Your task to perform on an android device: Show me productivity apps on the Play Store Image 0: 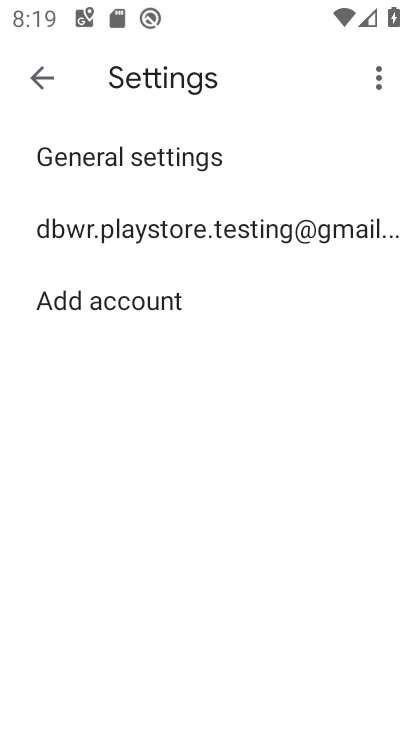
Step 0: press home button
Your task to perform on an android device: Show me productivity apps on the Play Store Image 1: 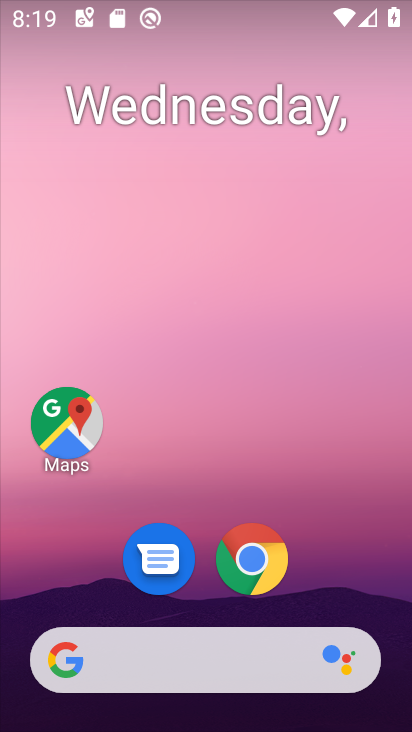
Step 1: drag from (394, 570) to (394, 164)
Your task to perform on an android device: Show me productivity apps on the Play Store Image 2: 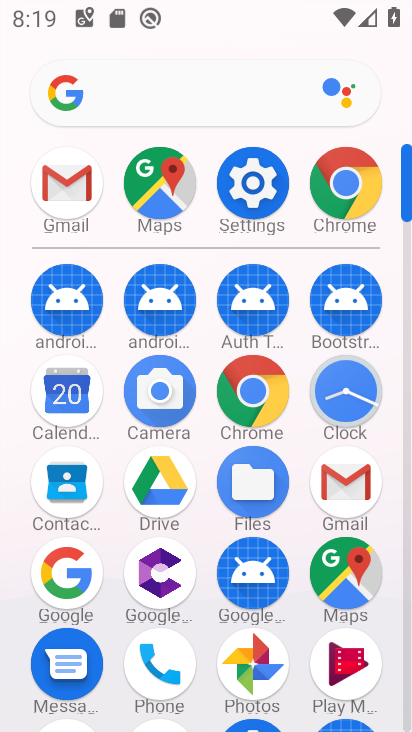
Step 2: drag from (294, 615) to (323, 325)
Your task to perform on an android device: Show me productivity apps on the Play Store Image 3: 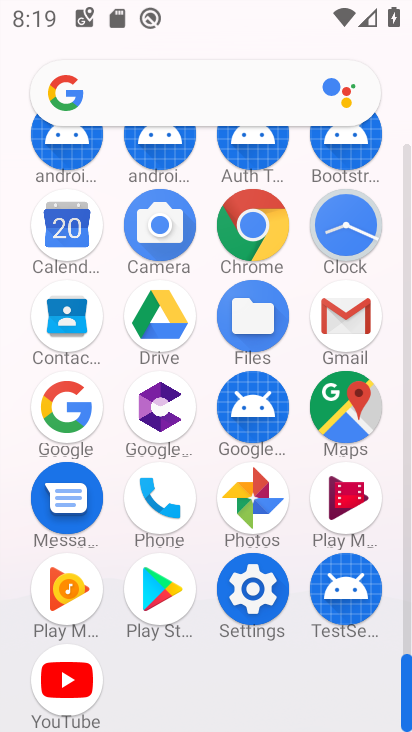
Step 3: click (158, 608)
Your task to perform on an android device: Show me productivity apps on the Play Store Image 4: 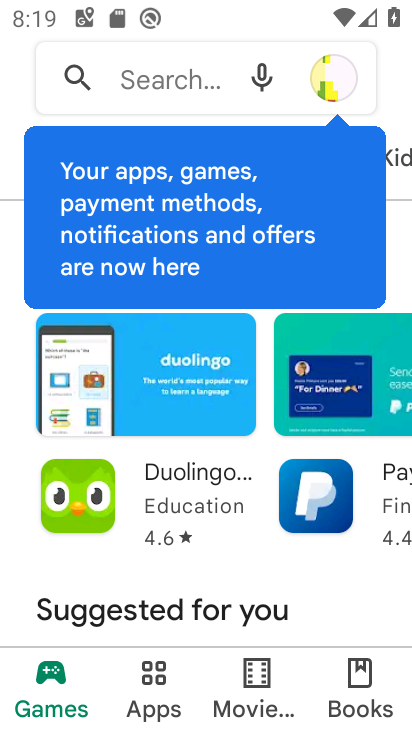
Step 4: click (150, 690)
Your task to perform on an android device: Show me productivity apps on the Play Store Image 5: 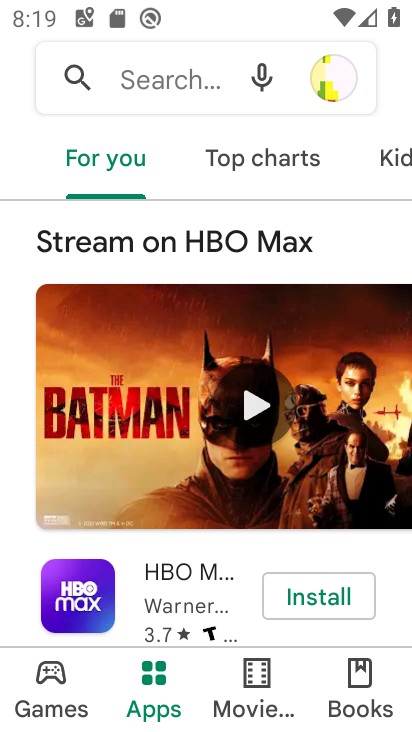
Step 5: drag from (348, 176) to (3, 191)
Your task to perform on an android device: Show me productivity apps on the Play Store Image 6: 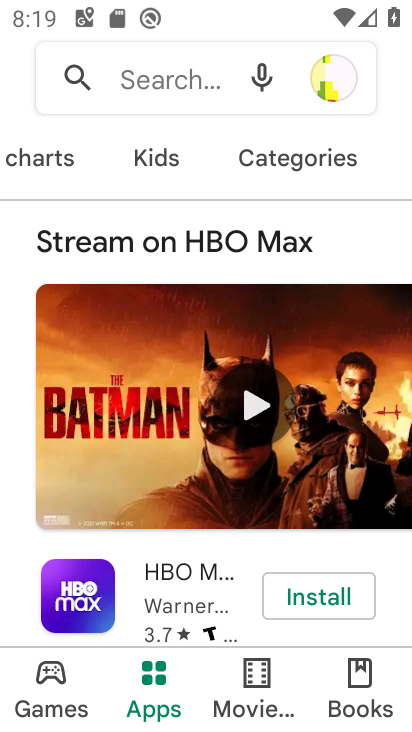
Step 6: click (327, 156)
Your task to perform on an android device: Show me productivity apps on the Play Store Image 7: 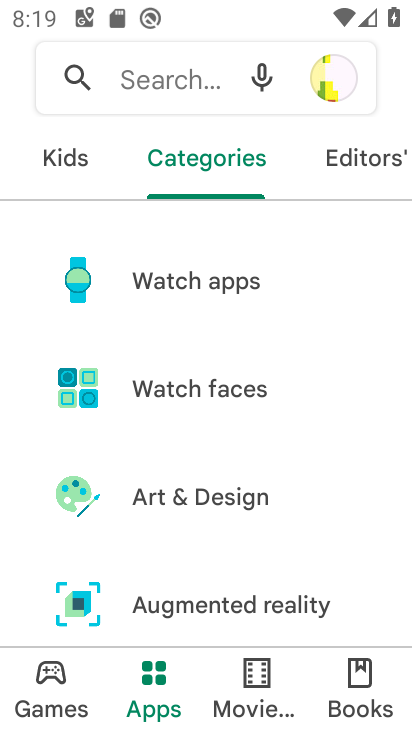
Step 7: drag from (338, 596) to (341, 311)
Your task to perform on an android device: Show me productivity apps on the Play Store Image 8: 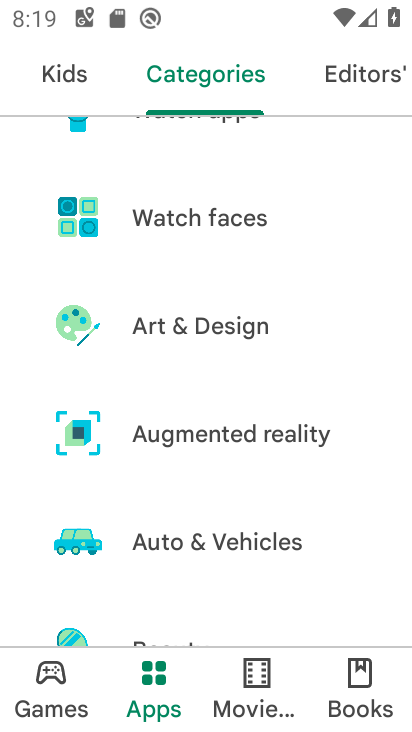
Step 8: drag from (344, 517) to (344, 182)
Your task to perform on an android device: Show me productivity apps on the Play Store Image 9: 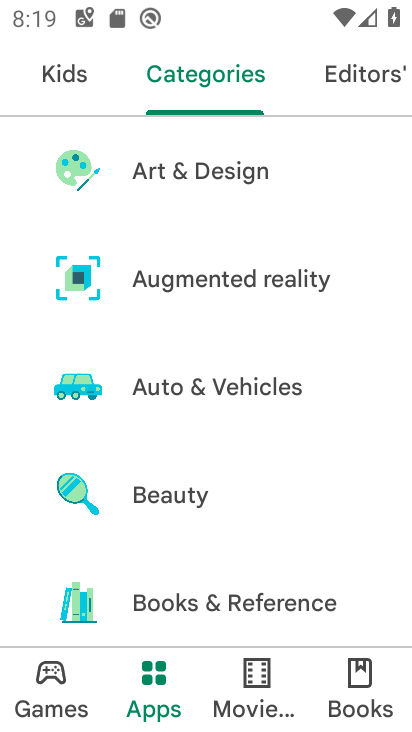
Step 9: drag from (340, 432) to (337, 163)
Your task to perform on an android device: Show me productivity apps on the Play Store Image 10: 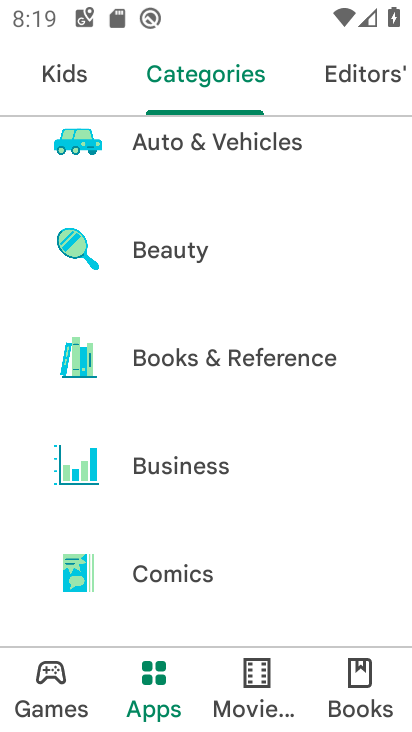
Step 10: drag from (327, 545) to (353, 188)
Your task to perform on an android device: Show me productivity apps on the Play Store Image 11: 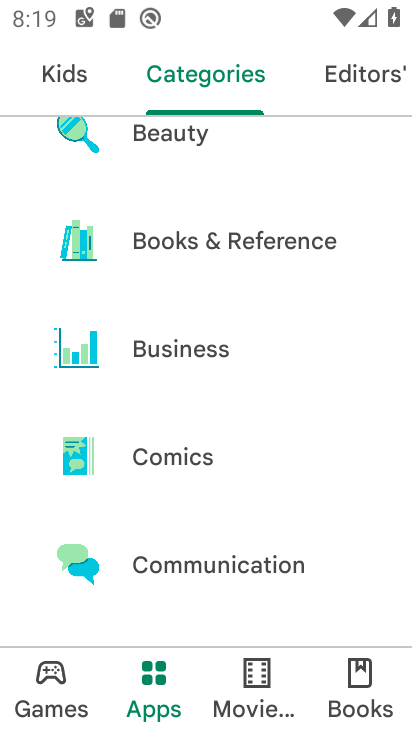
Step 11: drag from (304, 517) to (386, 146)
Your task to perform on an android device: Show me productivity apps on the Play Store Image 12: 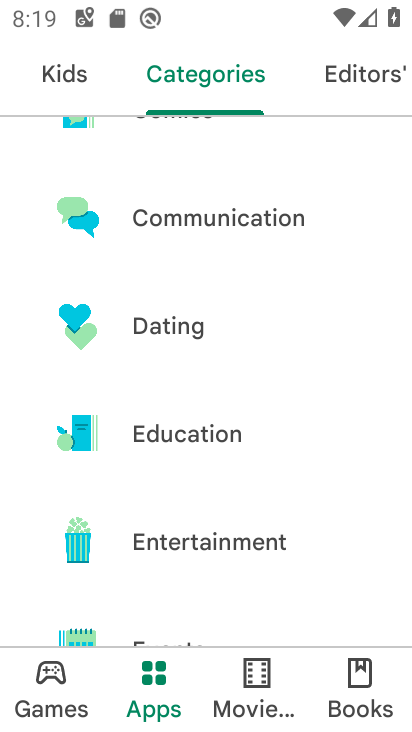
Step 12: drag from (362, 482) to (384, 185)
Your task to perform on an android device: Show me productivity apps on the Play Store Image 13: 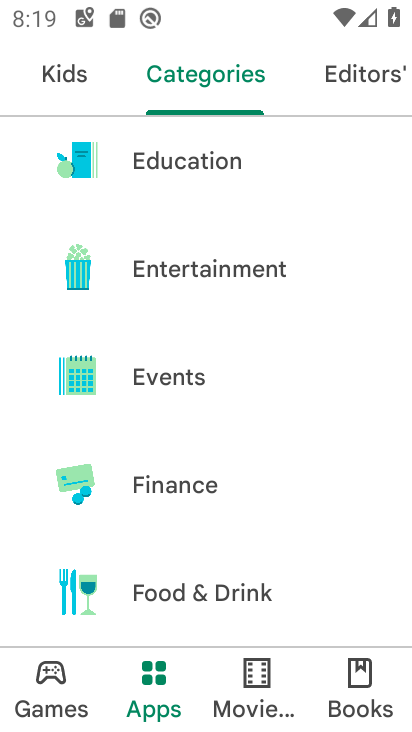
Step 13: drag from (363, 582) to (354, 73)
Your task to perform on an android device: Show me productivity apps on the Play Store Image 14: 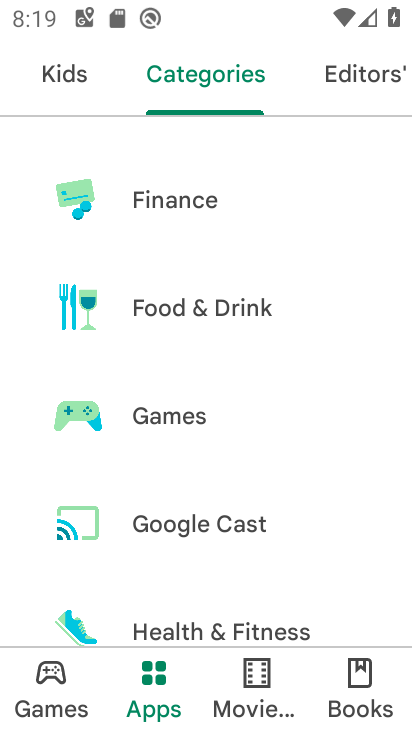
Step 14: drag from (371, 381) to (362, 188)
Your task to perform on an android device: Show me productivity apps on the Play Store Image 15: 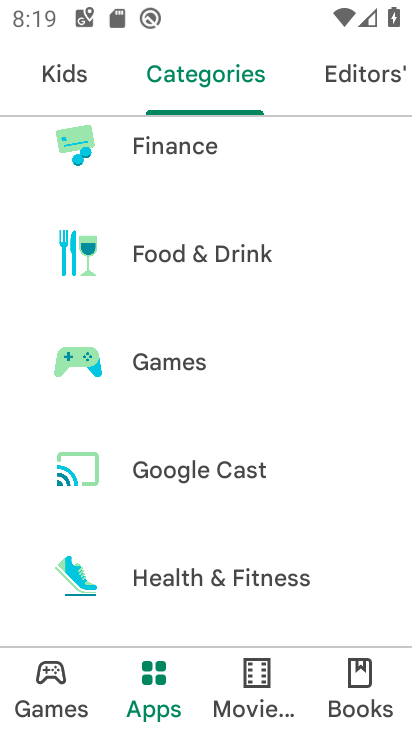
Step 15: drag from (348, 462) to (370, 176)
Your task to perform on an android device: Show me productivity apps on the Play Store Image 16: 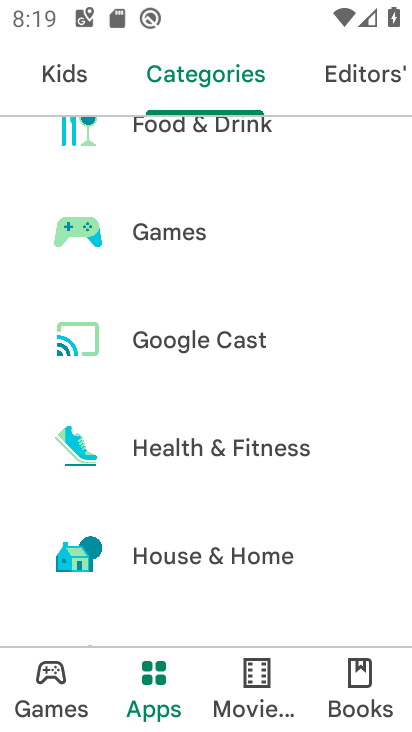
Step 16: drag from (344, 513) to (358, 232)
Your task to perform on an android device: Show me productivity apps on the Play Store Image 17: 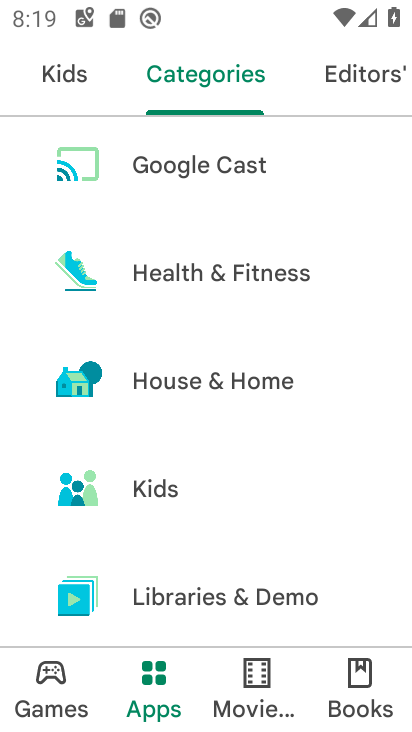
Step 17: drag from (384, 569) to (376, 176)
Your task to perform on an android device: Show me productivity apps on the Play Store Image 18: 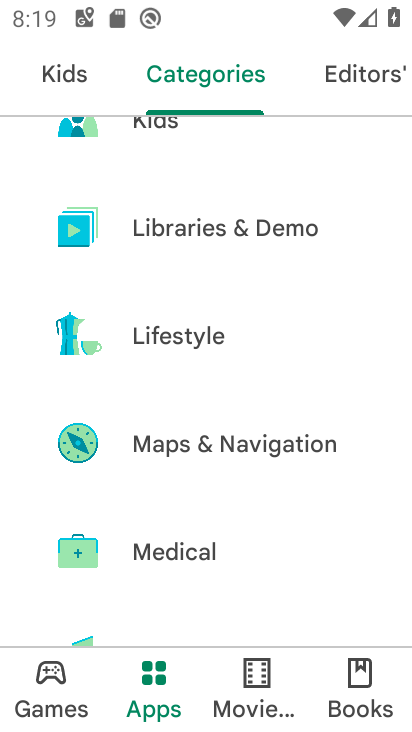
Step 18: drag from (366, 570) to (354, 159)
Your task to perform on an android device: Show me productivity apps on the Play Store Image 19: 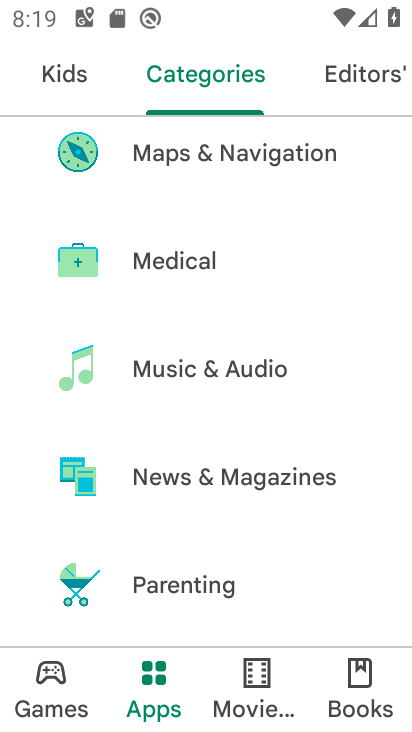
Step 19: drag from (314, 541) to (349, 208)
Your task to perform on an android device: Show me productivity apps on the Play Store Image 20: 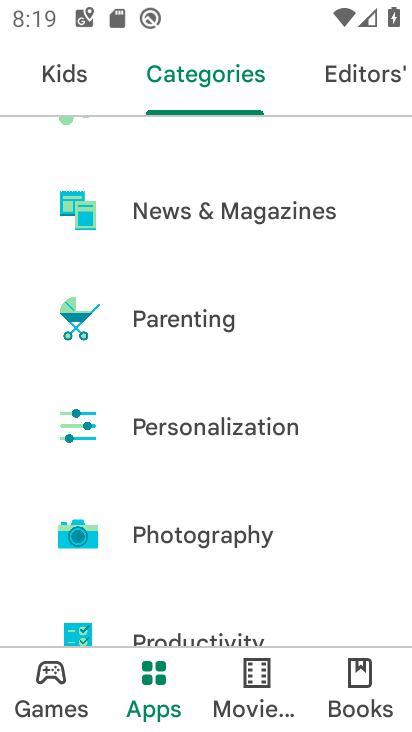
Step 20: drag from (323, 564) to (346, 212)
Your task to perform on an android device: Show me productivity apps on the Play Store Image 21: 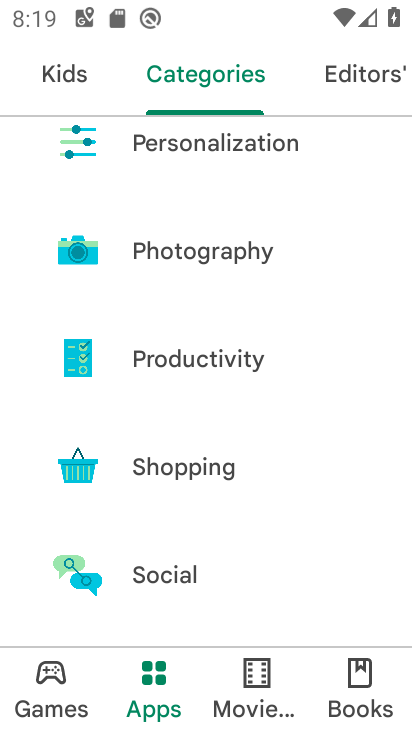
Step 21: click (123, 363)
Your task to perform on an android device: Show me productivity apps on the Play Store Image 22: 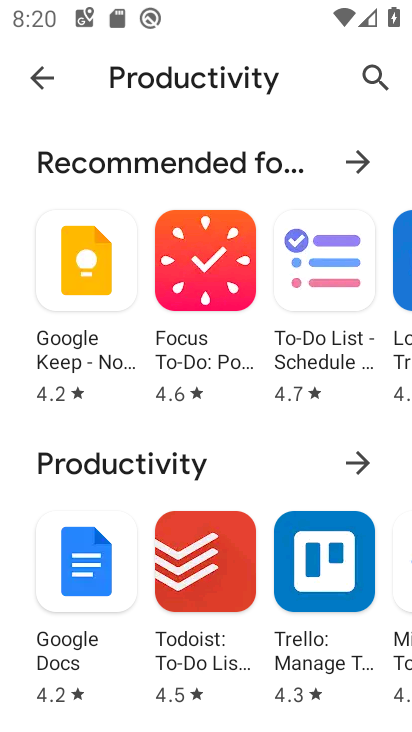
Step 22: task complete